Your task to perform on an android device: turn off improve location accuracy Image 0: 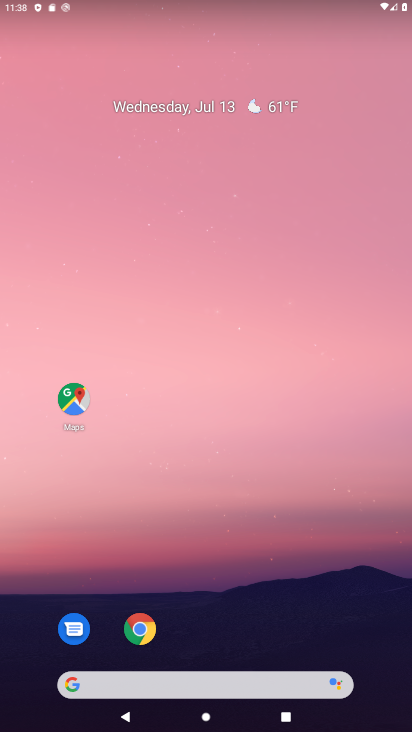
Step 0: drag from (193, 649) to (181, 166)
Your task to perform on an android device: turn off improve location accuracy Image 1: 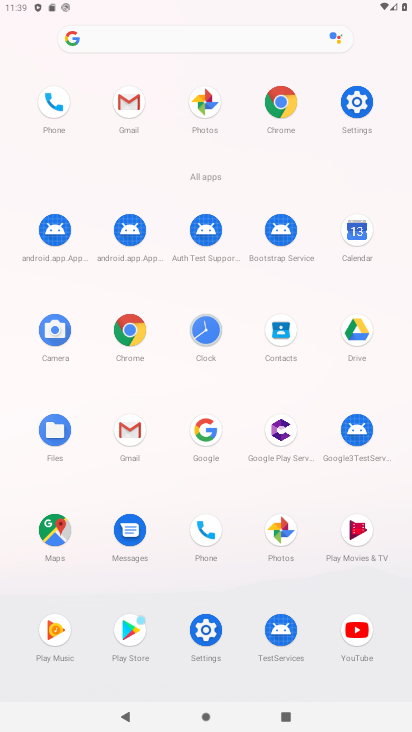
Step 1: click (355, 96)
Your task to perform on an android device: turn off improve location accuracy Image 2: 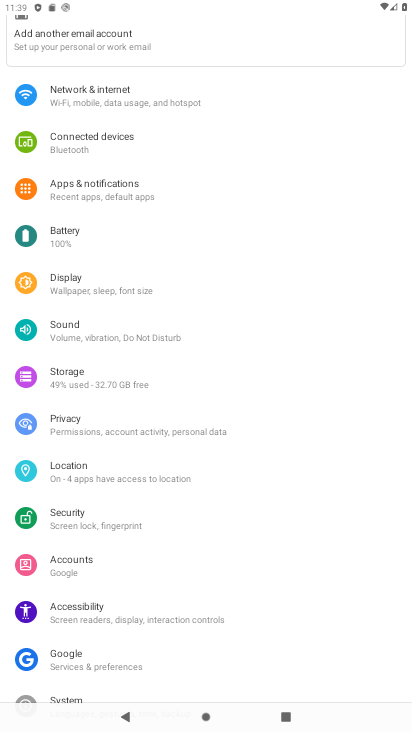
Step 2: click (52, 459)
Your task to perform on an android device: turn off improve location accuracy Image 3: 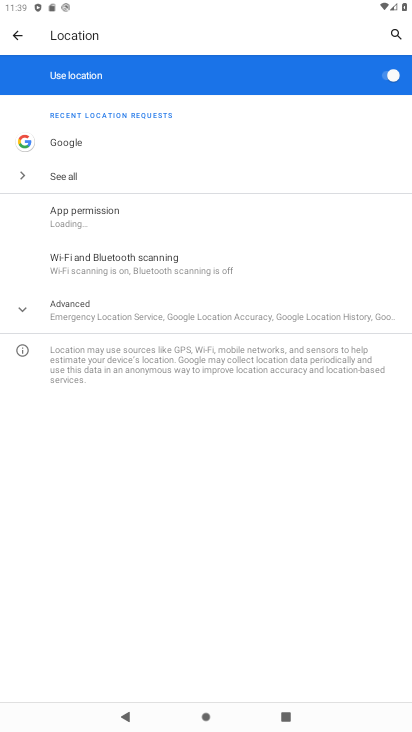
Step 3: click (62, 306)
Your task to perform on an android device: turn off improve location accuracy Image 4: 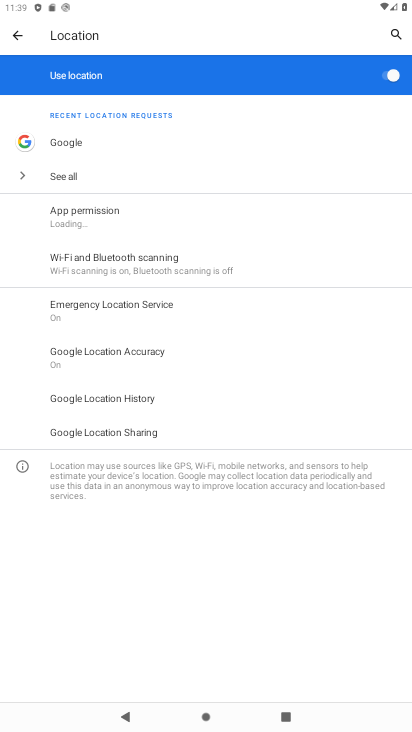
Step 4: click (121, 360)
Your task to perform on an android device: turn off improve location accuracy Image 5: 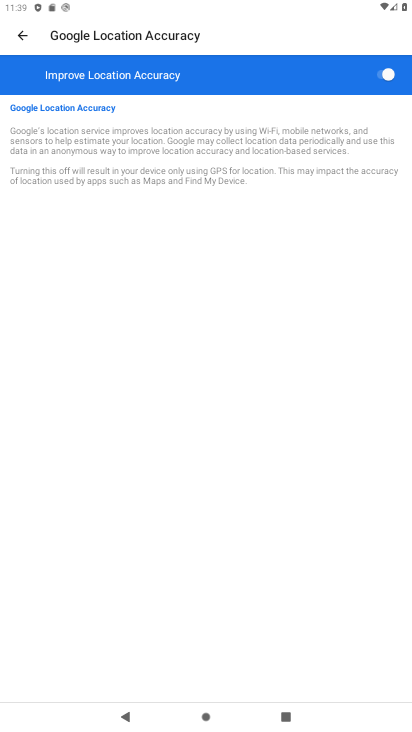
Step 5: click (374, 82)
Your task to perform on an android device: turn off improve location accuracy Image 6: 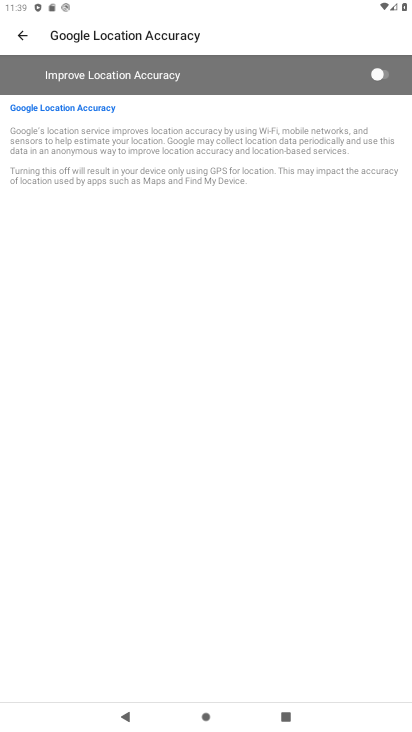
Step 6: task complete